Your task to perform on an android device: Open Yahoo.com Image 0: 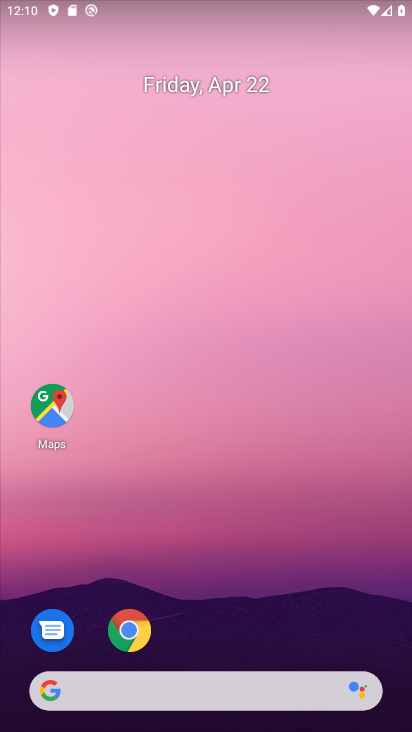
Step 0: click (220, 685)
Your task to perform on an android device: Open Yahoo.com Image 1: 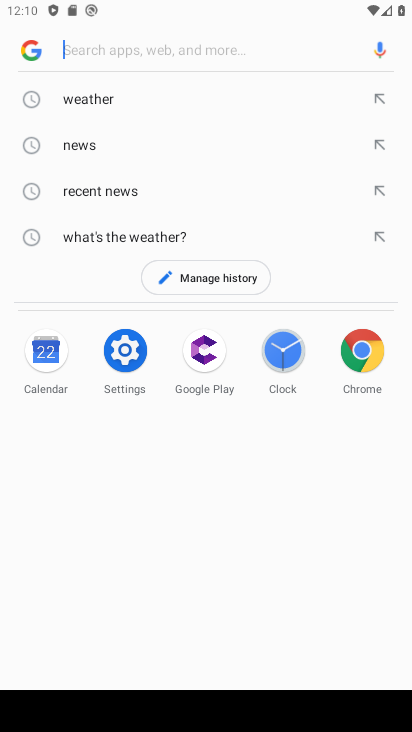
Step 1: type "yahoo.com"
Your task to perform on an android device: Open Yahoo.com Image 2: 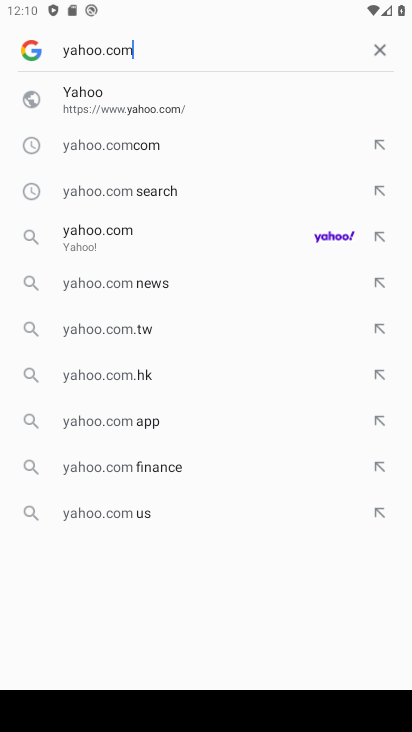
Step 2: click (202, 109)
Your task to perform on an android device: Open Yahoo.com Image 3: 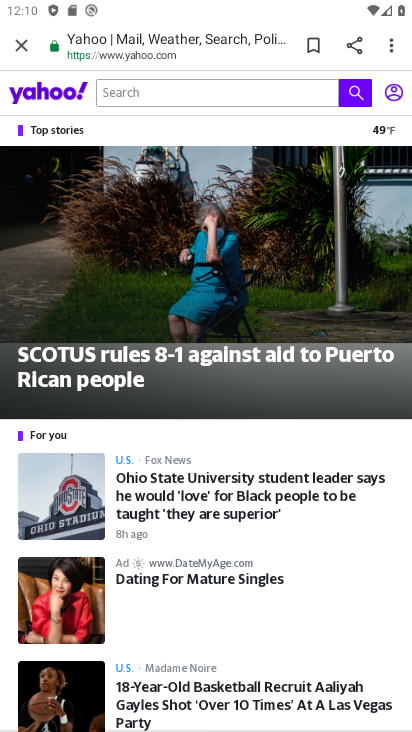
Step 3: task complete